Your task to perform on an android device: visit the assistant section in the google photos Image 0: 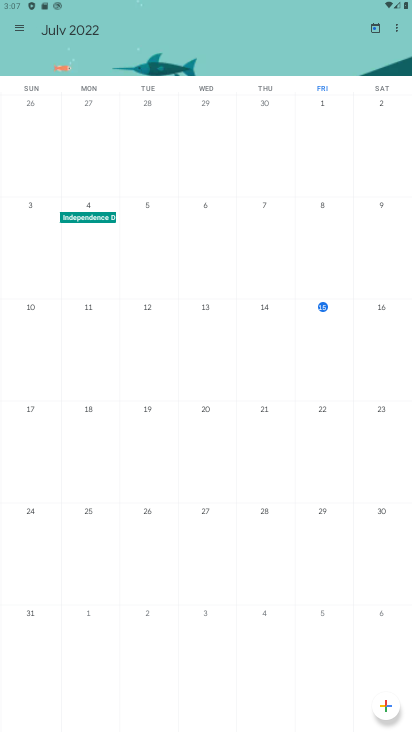
Step 0: press home button
Your task to perform on an android device: visit the assistant section in the google photos Image 1: 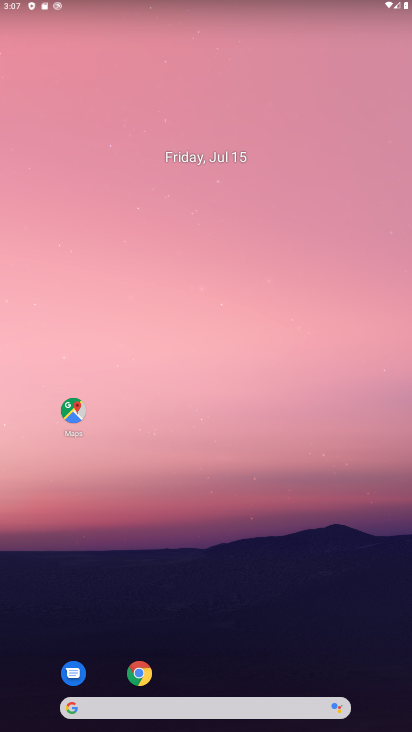
Step 1: drag from (221, 689) to (300, 275)
Your task to perform on an android device: visit the assistant section in the google photos Image 2: 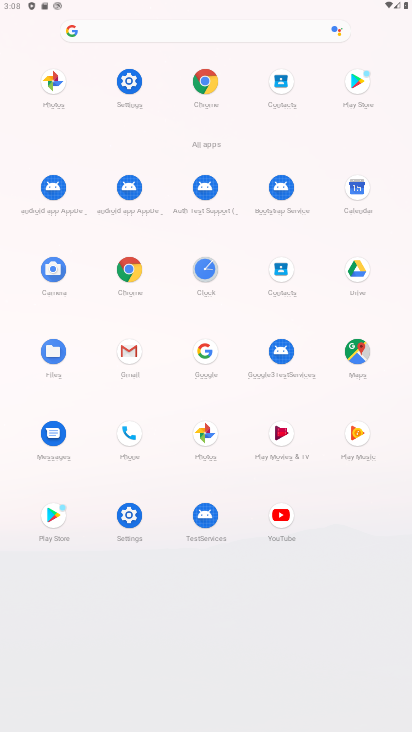
Step 2: click (217, 434)
Your task to perform on an android device: visit the assistant section in the google photos Image 3: 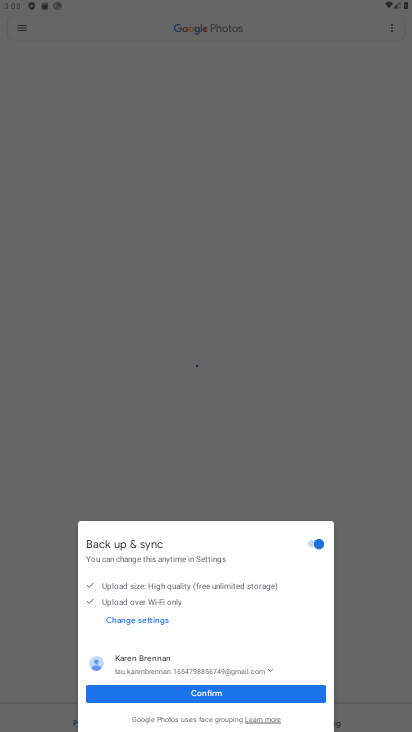
Step 3: click (206, 690)
Your task to perform on an android device: visit the assistant section in the google photos Image 4: 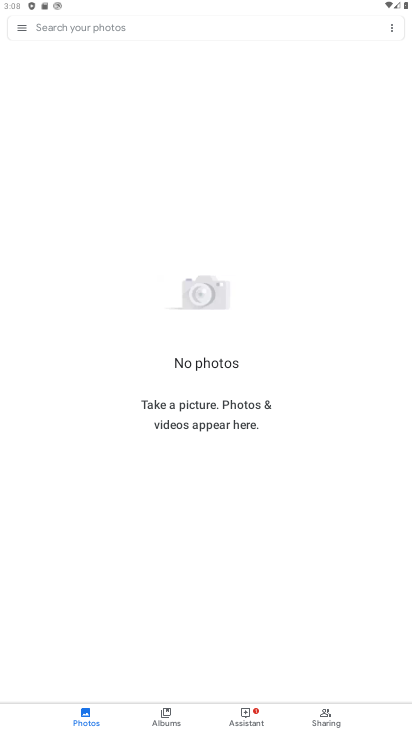
Step 4: click (241, 713)
Your task to perform on an android device: visit the assistant section in the google photos Image 5: 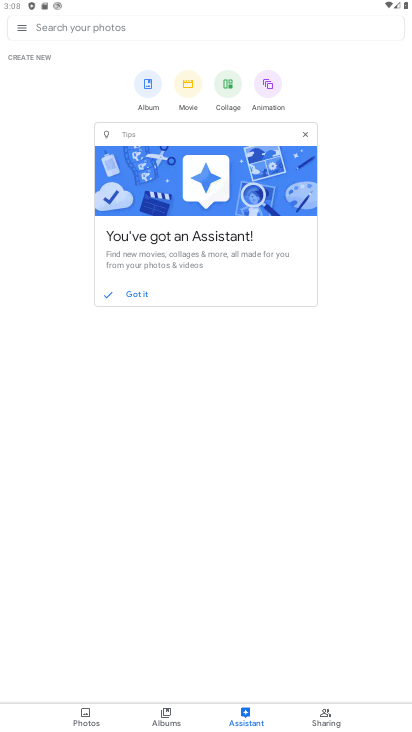
Step 5: task complete